Your task to perform on an android device: turn on bluetooth scan Image 0: 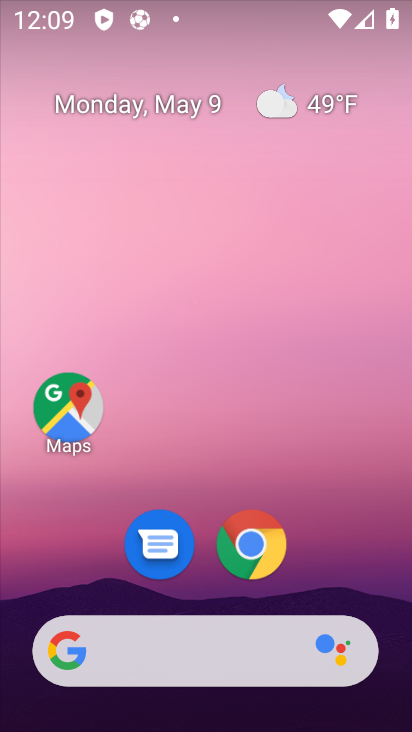
Step 0: drag from (355, 606) to (411, 83)
Your task to perform on an android device: turn on bluetooth scan Image 1: 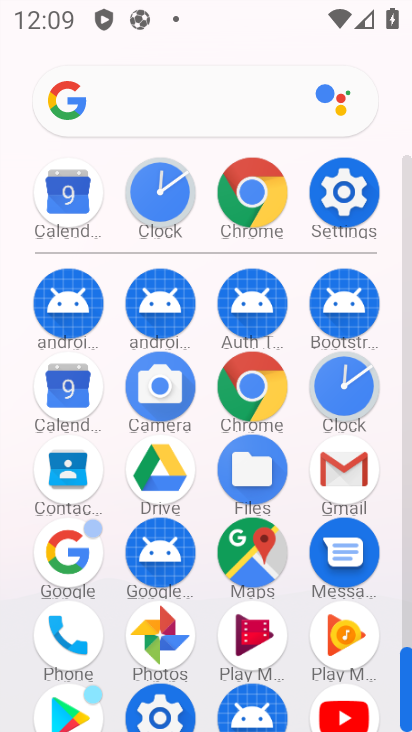
Step 1: click (269, 567)
Your task to perform on an android device: turn on bluetooth scan Image 2: 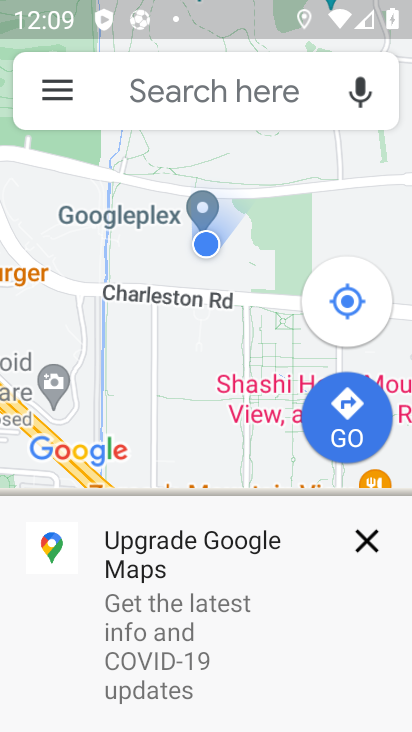
Step 2: press home button
Your task to perform on an android device: turn on bluetooth scan Image 3: 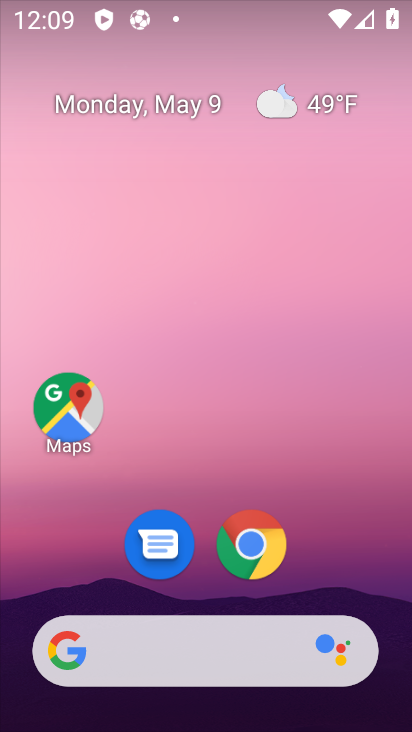
Step 3: drag from (241, 703) to (244, 26)
Your task to perform on an android device: turn on bluetooth scan Image 4: 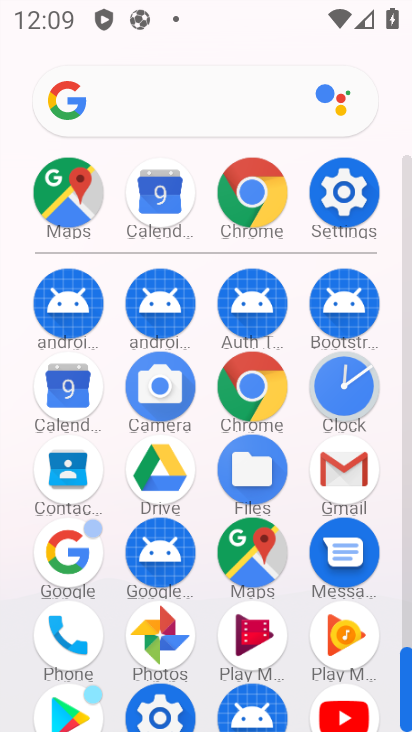
Step 4: click (163, 703)
Your task to perform on an android device: turn on bluetooth scan Image 5: 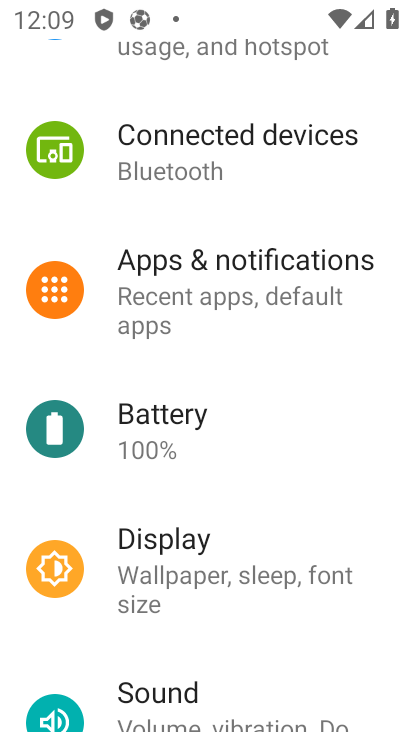
Step 5: click (280, 263)
Your task to perform on an android device: turn on bluetooth scan Image 6: 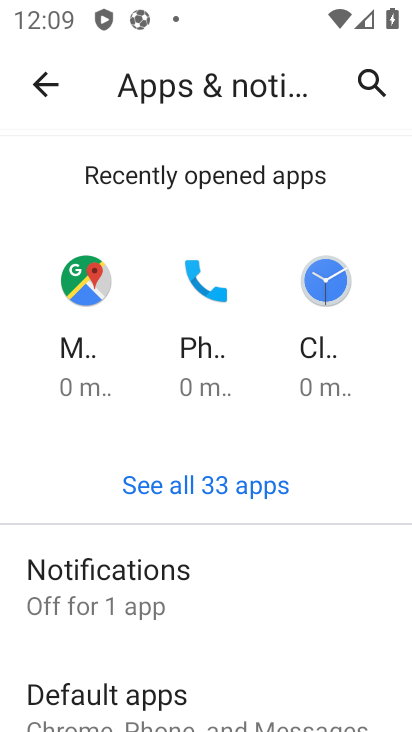
Step 6: press back button
Your task to perform on an android device: turn on bluetooth scan Image 7: 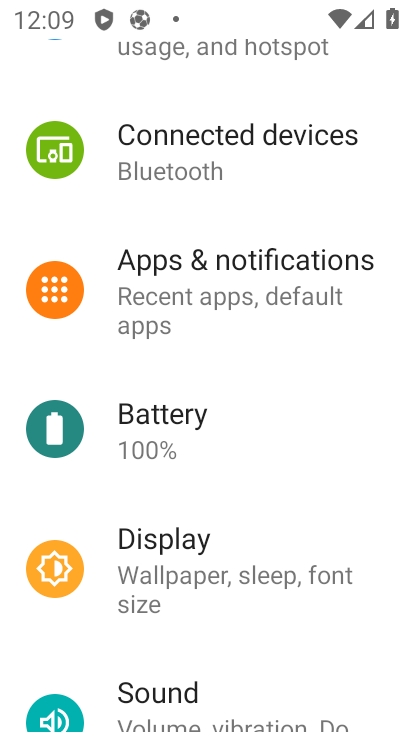
Step 7: drag from (239, 662) to (297, 71)
Your task to perform on an android device: turn on bluetooth scan Image 8: 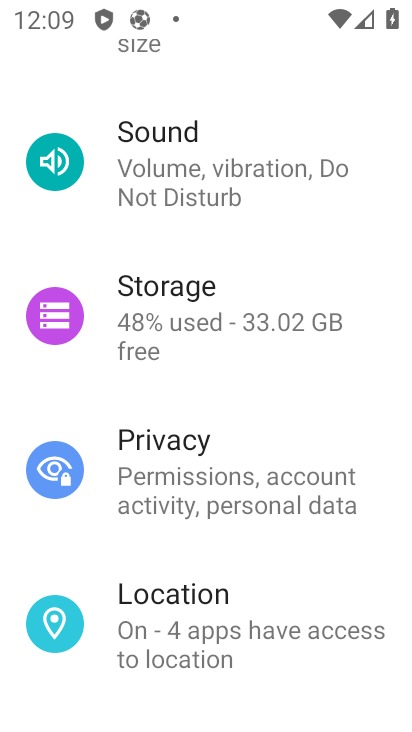
Step 8: click (231, 622)
Your task to perform on an android device: turn on bluetooth scan Image 9: 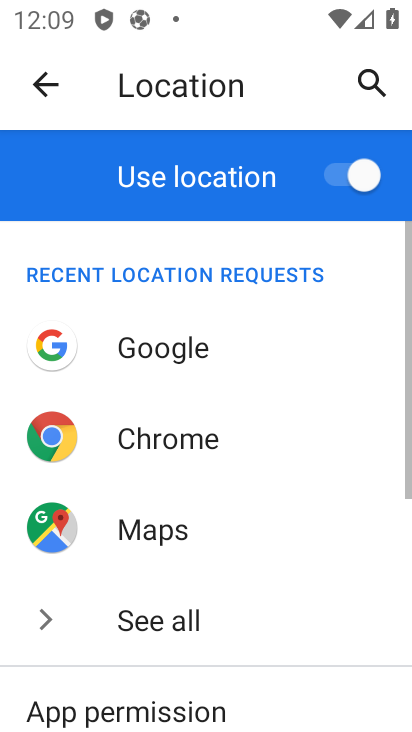
Step 9: drag from (221, 679) to (269, 67)
Your task to perform on an android device: turn on bluetooth scan Image 10: 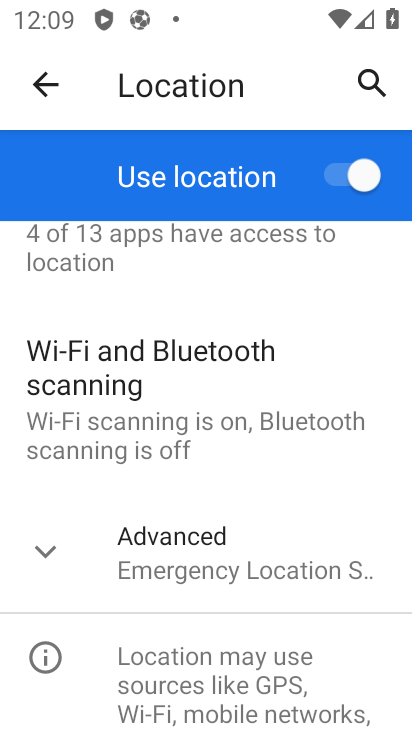
Step 10: click (255, 438)
Your task to perform on an android device: turn on bluetooth scan Image 11: 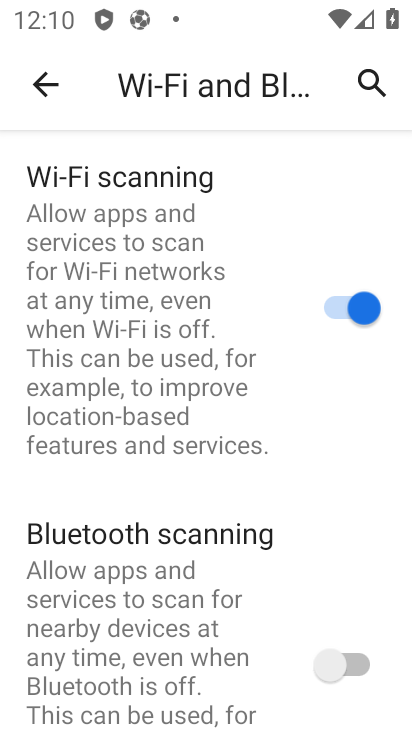
Step 11: click (351, 665)
Your task to perform on an android device: turn on bluetooth scan Image 12: 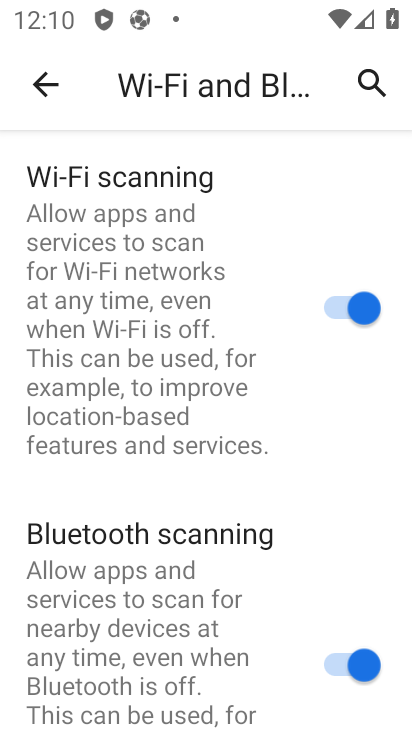
Step 12: task complete